Your task to perform on an android device: add a label to a message in the gmail app Image 0: 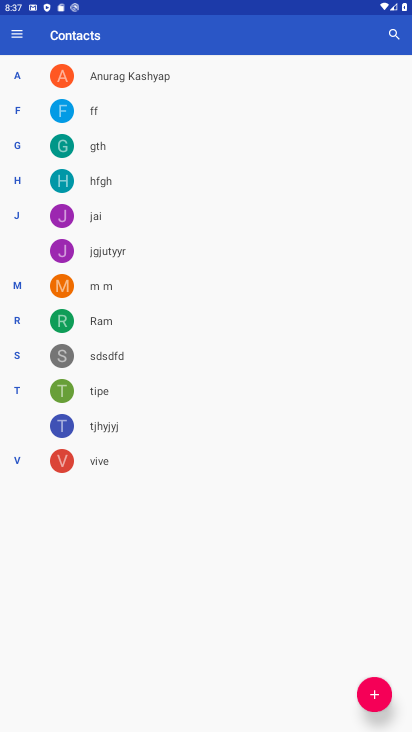
Step 0: press home button
Your task to perform on an android device: add a label to a message in the gmail app Image 1: 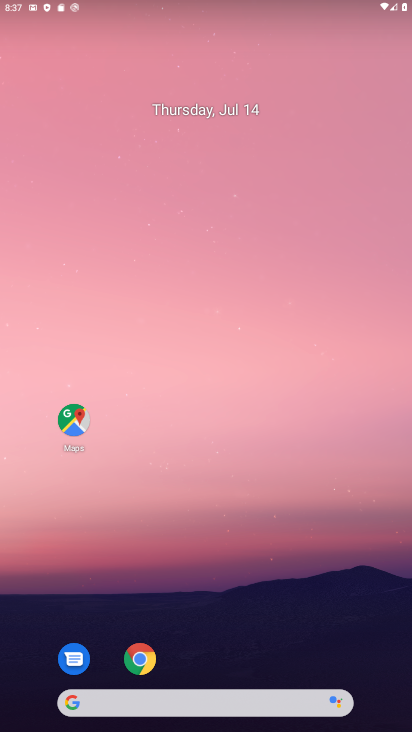
Step 1: drag from (173, 625) to (210, 48)
Your task to perform on an android device: add a label to a message in the gmail app Image 2: 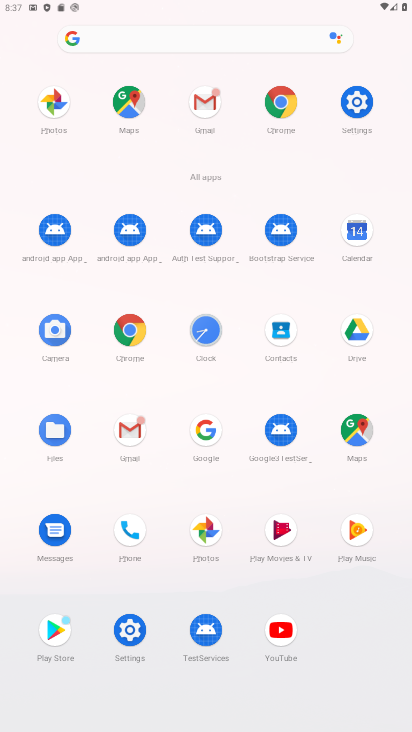
Step 2: click (209, 102)
Your task to perform on an android device: add a label to a message in the gmail app Image 3: 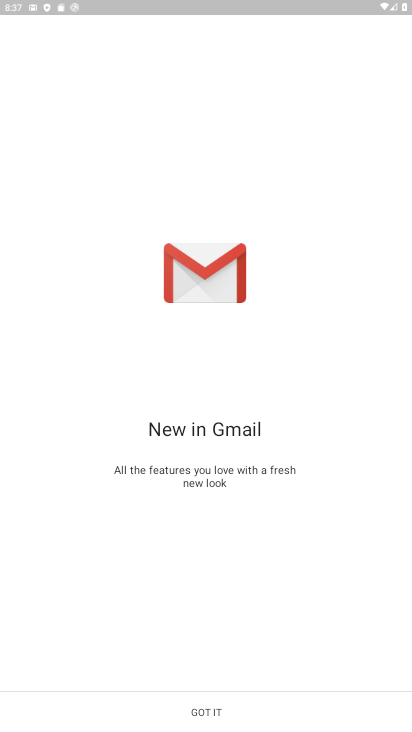
Step 3: click (206, 702)
Your task to perform on an android device: add a label to a message in the gmail app Image 4: 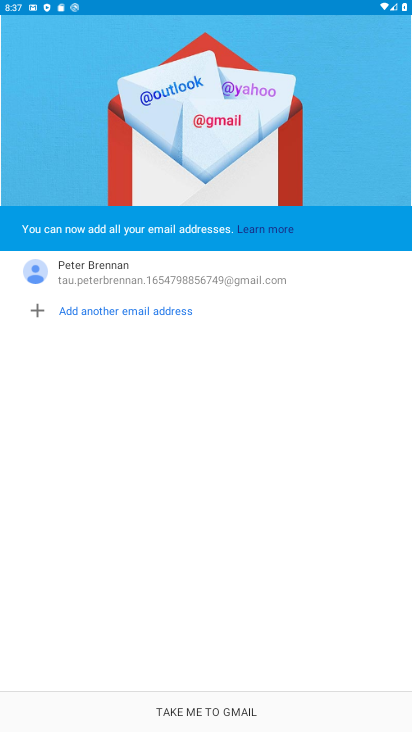
Step 4: click (226, 707)
Your task to perform on an android device: add a label to a message in the gmail app Image 5: 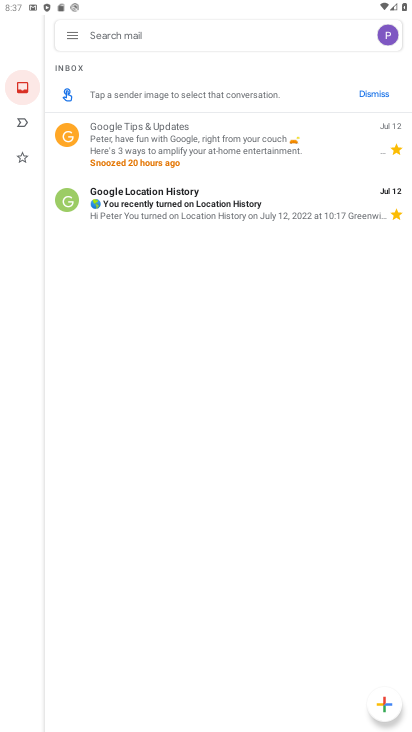
Step 5: click (187, 205)
Your task to perform on an android device: add a label to a message in the gmail app Image 6: 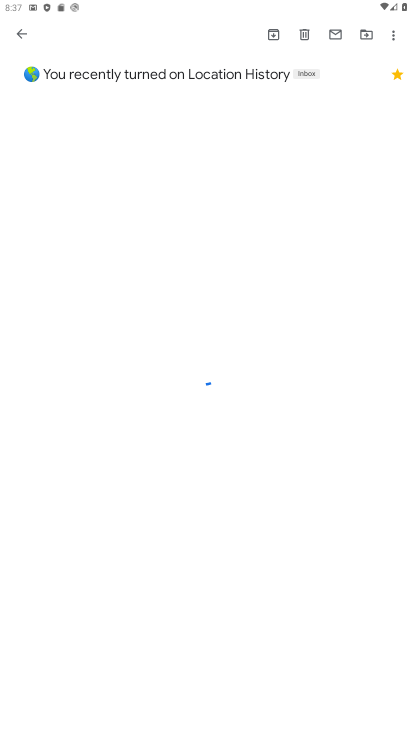
Step 6: click (397, 33)
Your task to perform on an android device: add a label to a message in the gmail app Image 7: 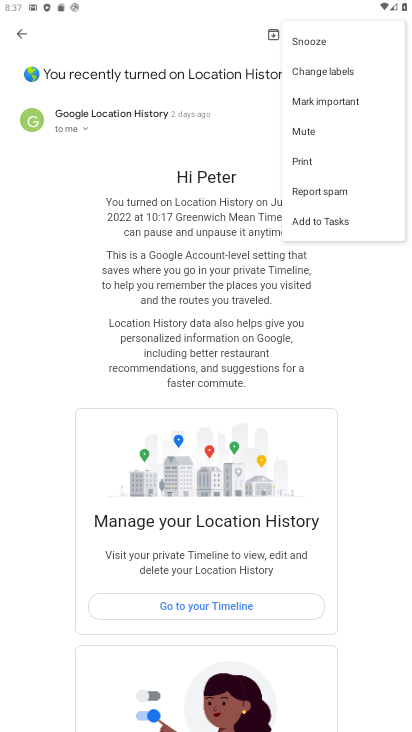
Step 7: click (343, 74)
Your task to perform on an android device: add a label to a message in the gmail app Image 8: 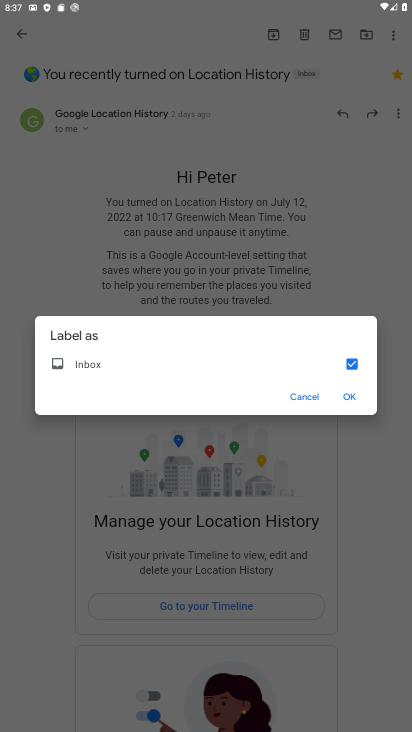
Step 8: click (351, 388)
Your task to perform on an android device: add a label to a message in the gmail app Image 9: 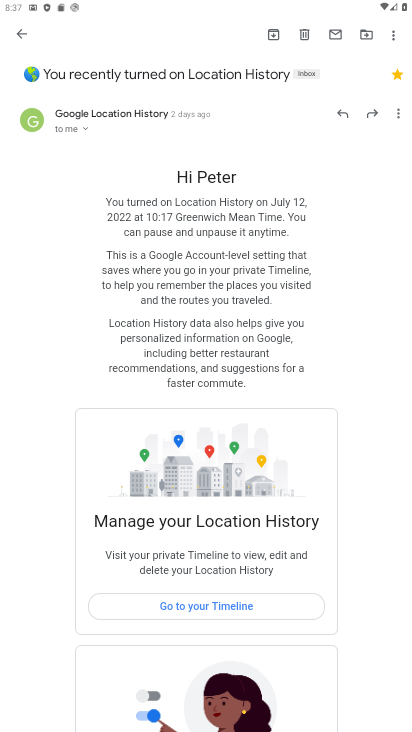
Step 9: task complete